Your task to perform on an android device: install app "Google Play Games" Image 0: 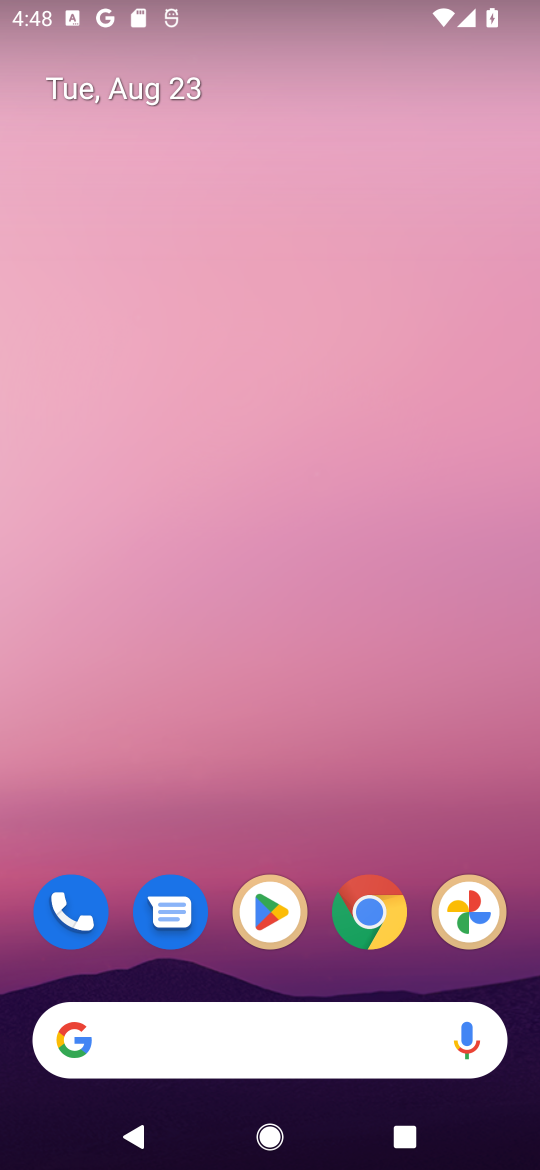
Step 0: drag from (285, 988) to (180, 362)
Your task to perform on an android device: install app "Google Play Games" Image 1: 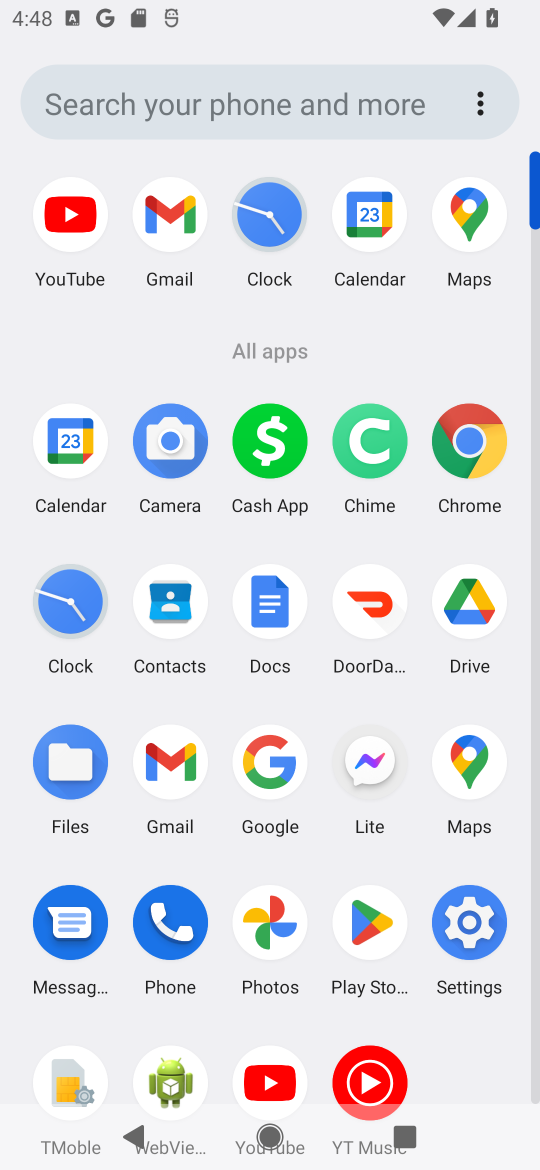
Step 1: click (374, 910)
Your task to perform on an android device: install app "Google Play Games" Image 2: 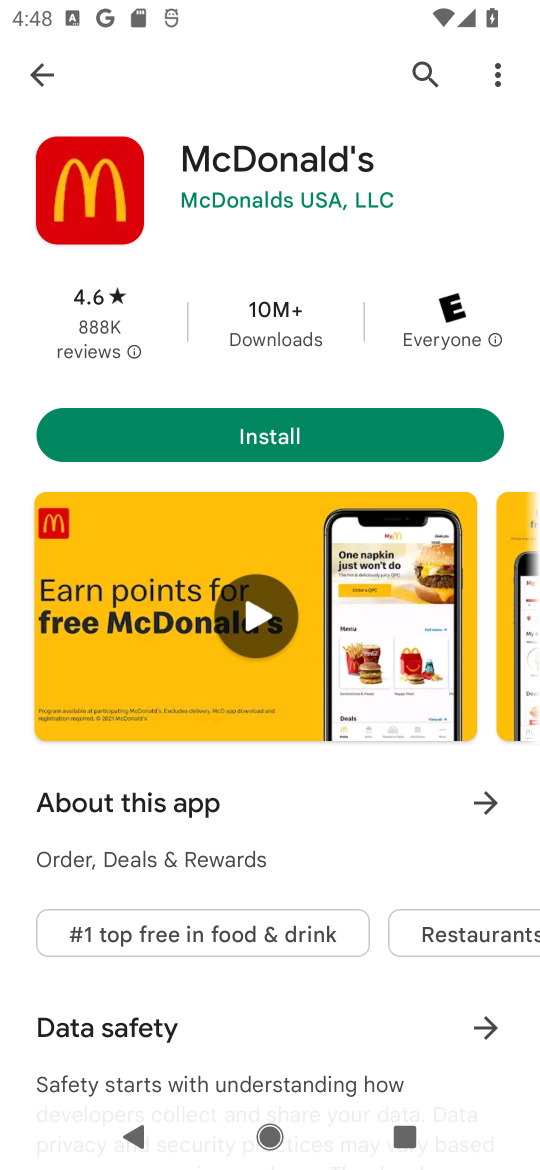
Step 2: click (64, 74)
Your task to perform on an android device: install app "Google Play Games" Image 3: 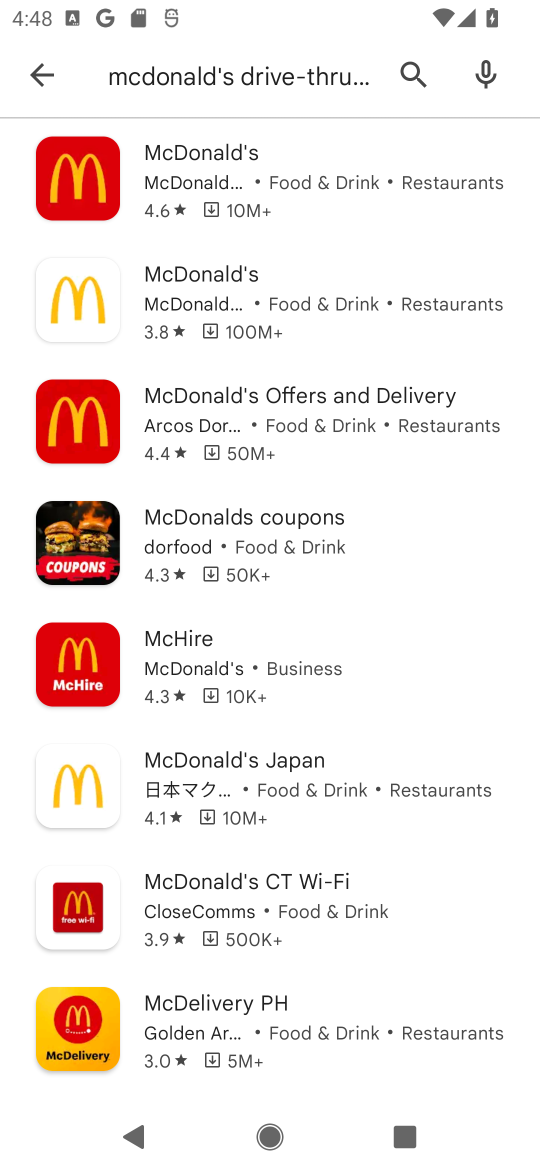
Step 3: click (58, 76)
Your task to perform on an android device: install app "Google Play Games" Image 4: 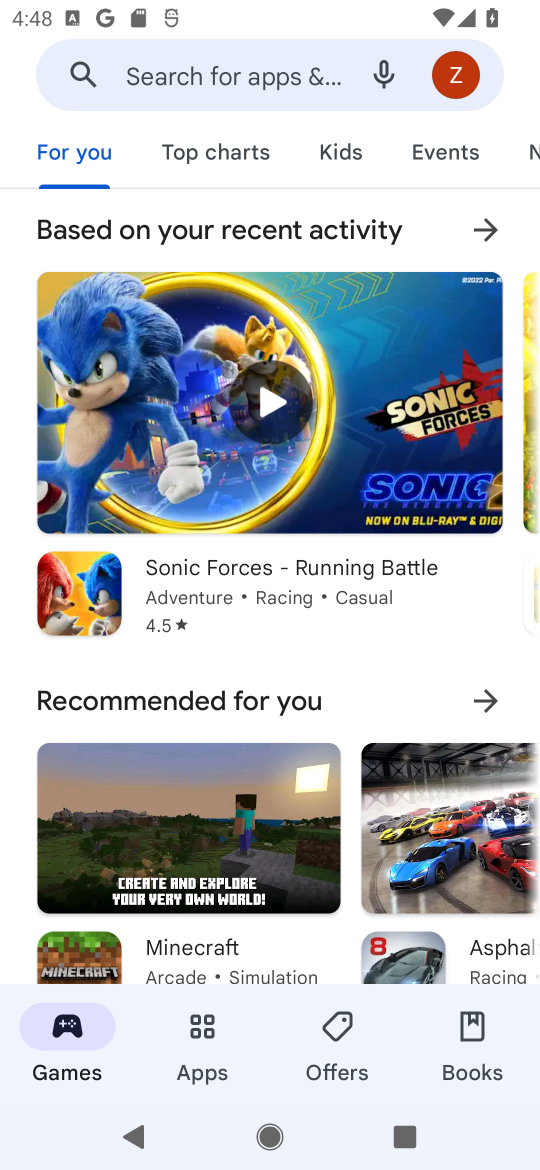
Step 4: click (201, 76)
Your task to perform on an android device: install app "Google Play Games" Image 5: 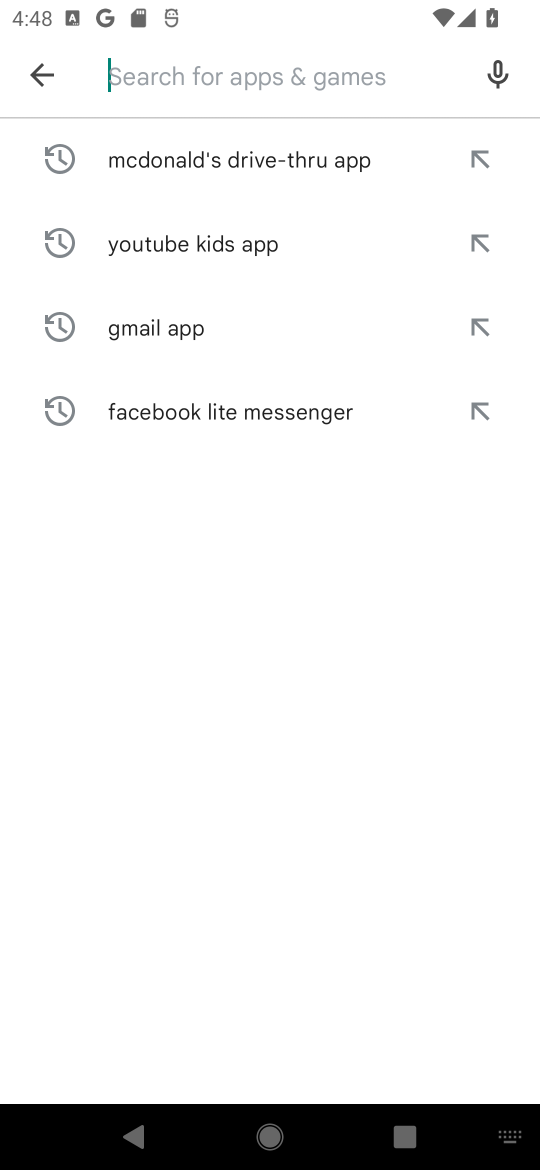
Step 5: type "google play games "
Your task to perform on an android device: install app "Google Play Games" Image 6: 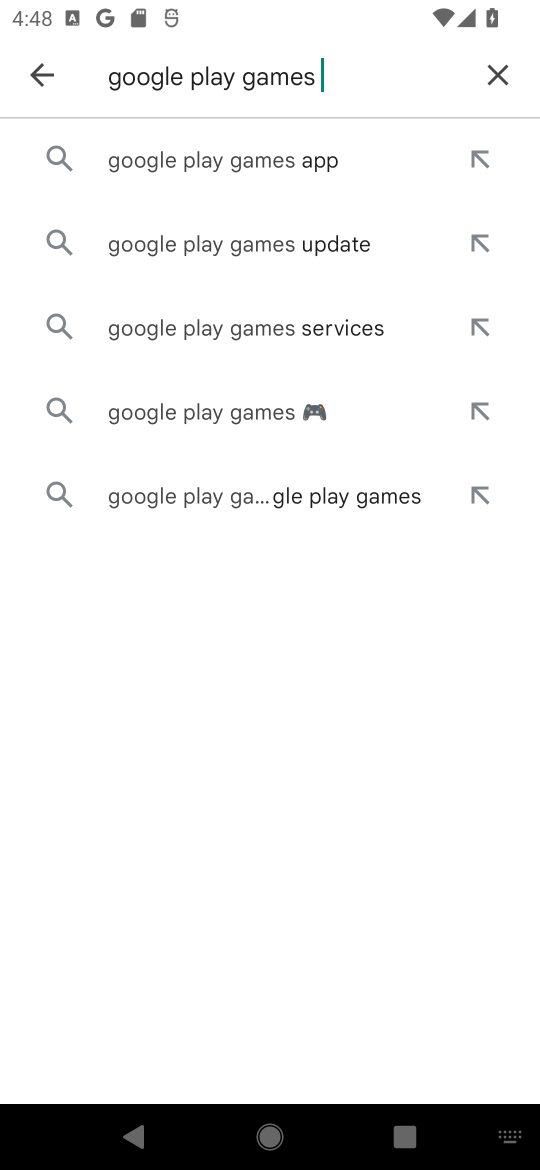
Step 6: click (265, 159)
Your task to perform on an android device: install app "Google Play Games" Image 7: 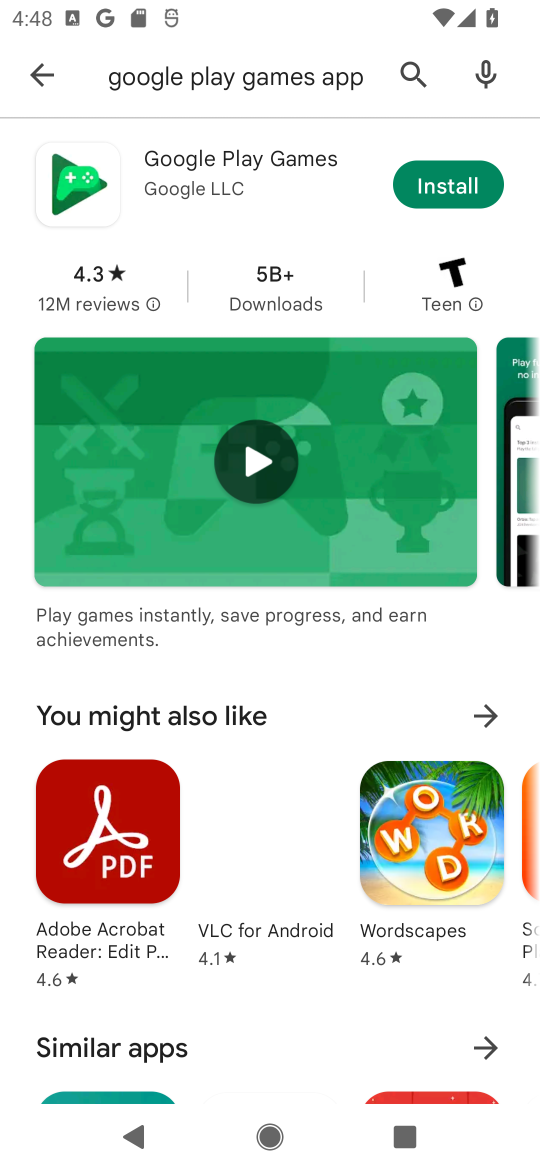
Step 7: click (440, 175)
Your task to perform on an android device: install app "Google Play Games" Image 8: 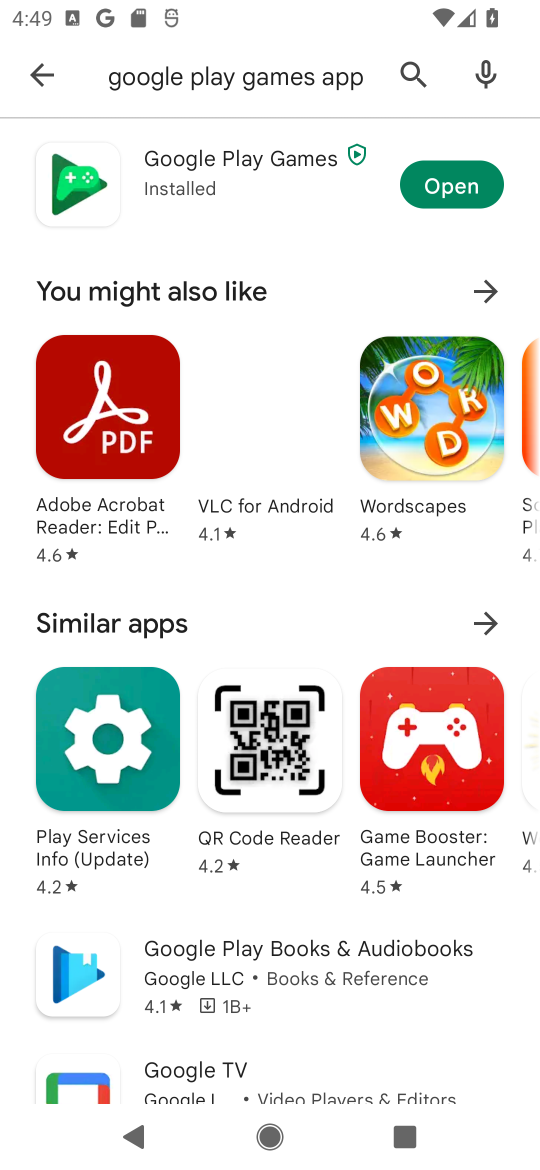
Step 8: task complete